Your task to perform on an android device: uninstall "Adobe Acrobat Reader" Image 0: 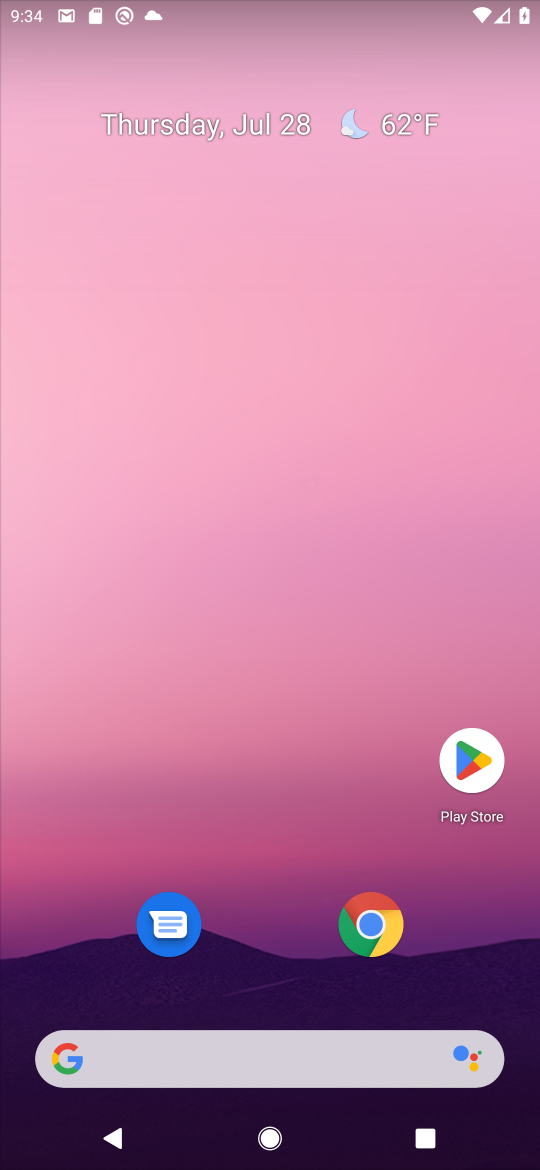
Step 0: press home button
Your task to perform on an android device: uninstall "Adobe Acrobat Reader" Image 1: 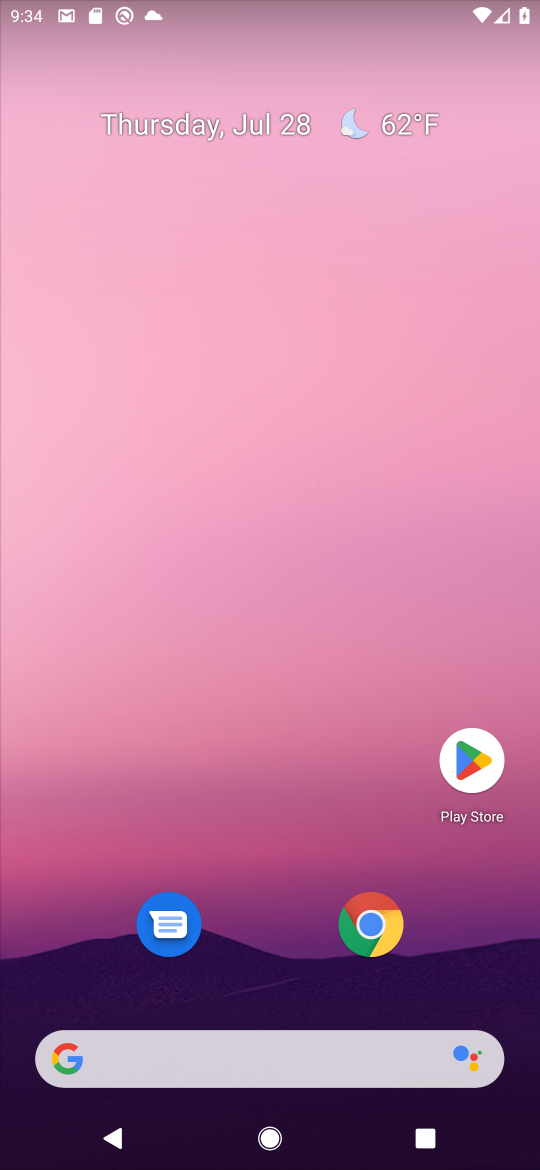
Step 1: click (475, 756)
Your task to perform on an android device: uninstall "Adobe Acrobat Reader" Image 2: 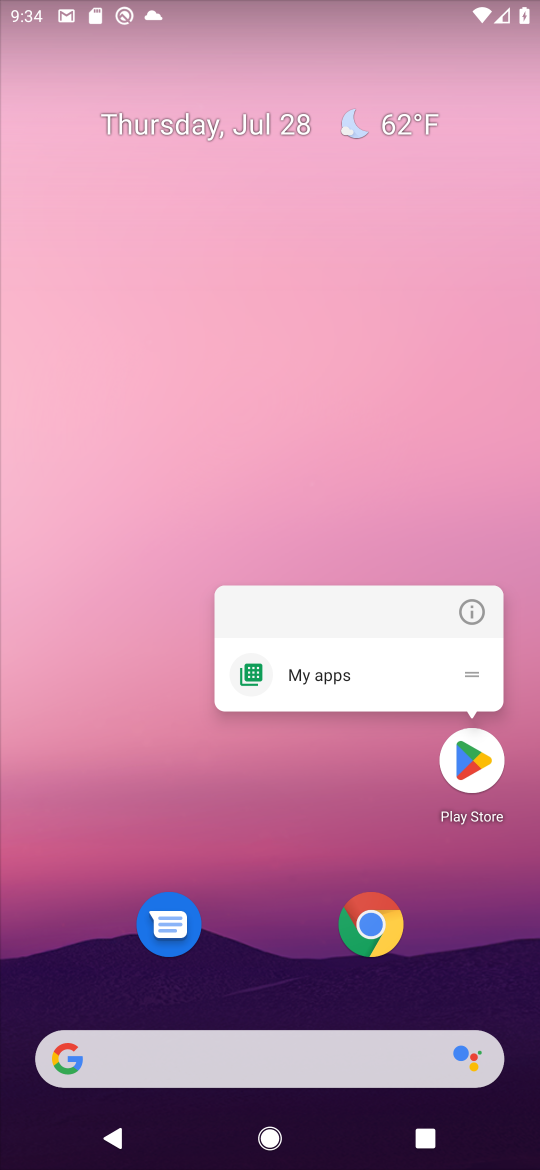
Step 2: click (475, 768)
Your task to perform on an android device: uninstall "Adobe Acrobat Reader" Image 3: 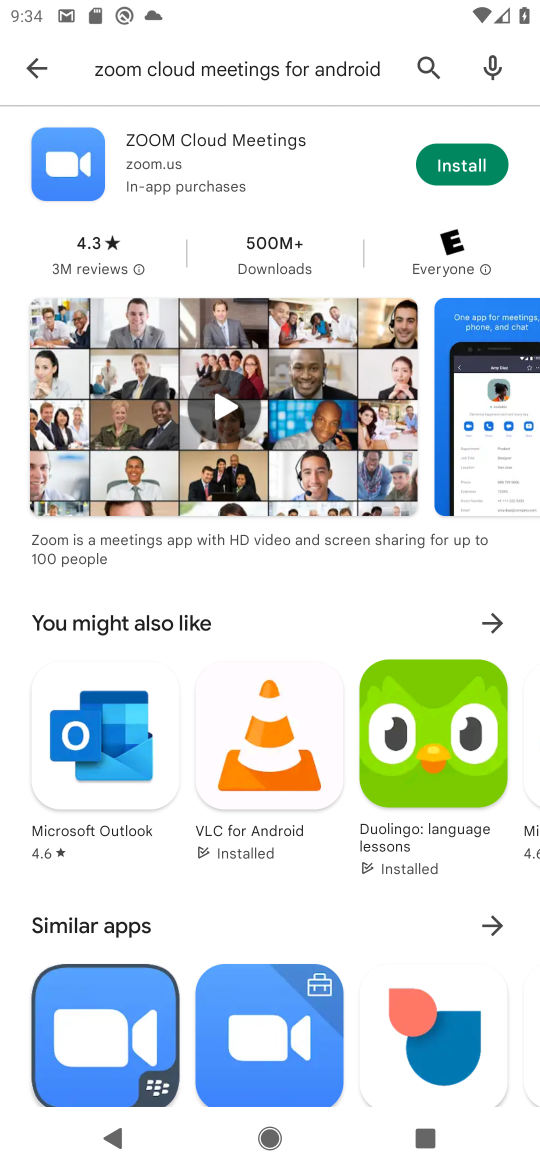
Step 3: click (425, 63)
Your task to perform on an android device: uninstall "Adobe Acrobat Reader" Image 4: 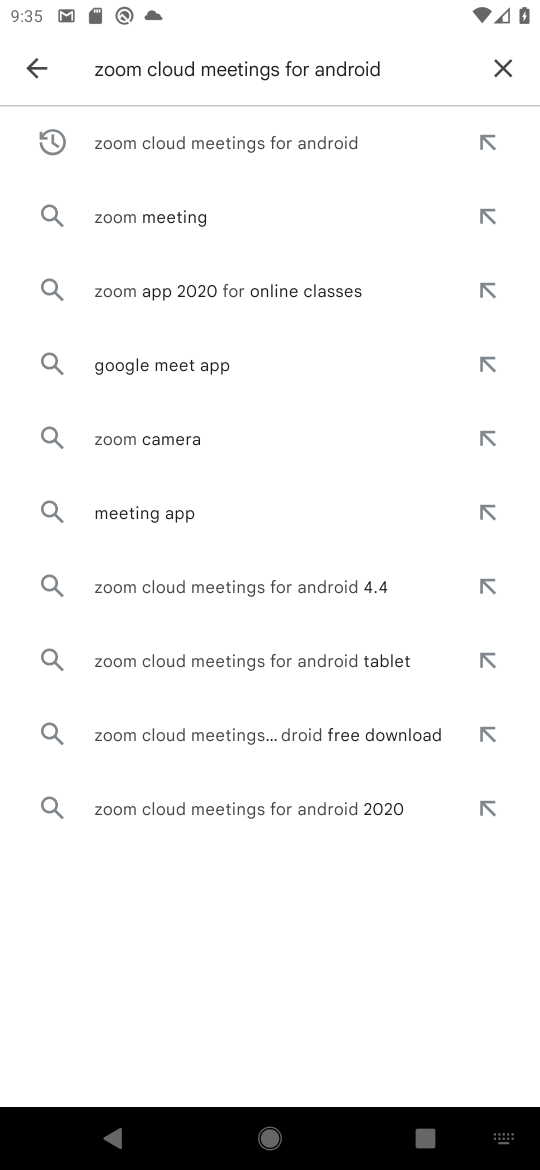
Step 4: click (492, 60)
Your task to perform on an android device: uninstall "Adobe Acrobat Reader" Image 5: 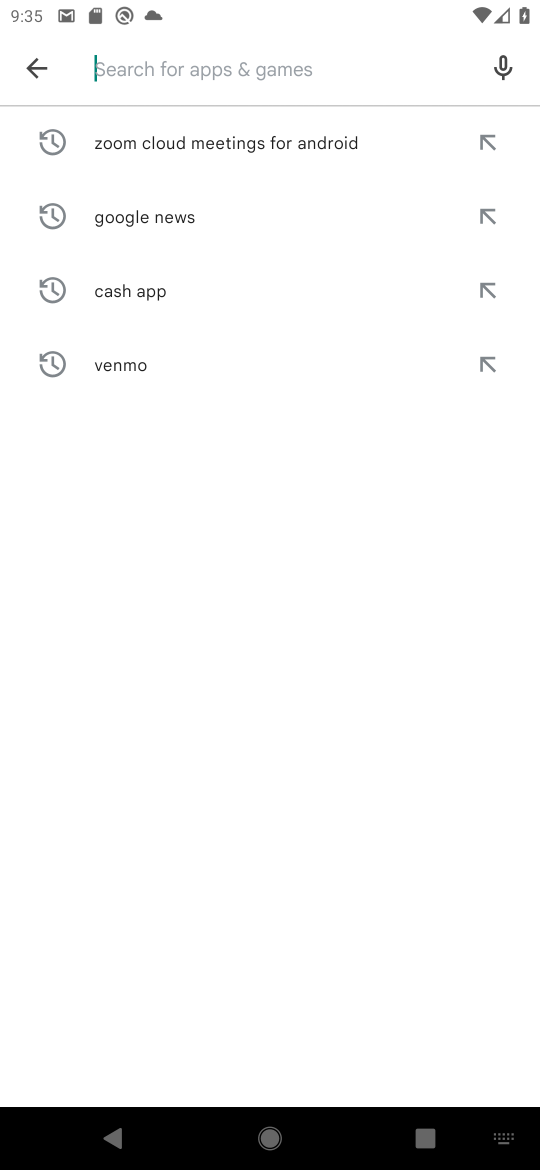
Step 5: type "Adobe Acrobat Reader"
Your task to perform on an android device: uninstall "Adobe Acrobat Reader" Image 6: 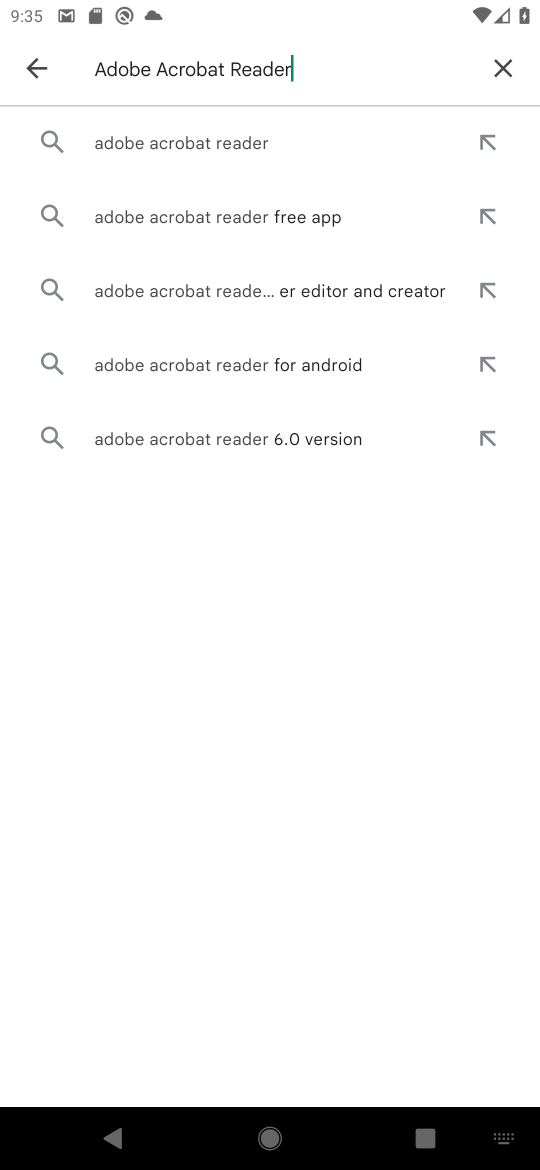
Step 6: click (158, 145)
Your task to perform on an android device: uninstall "Adobe Acrobat Reader" Image 7: 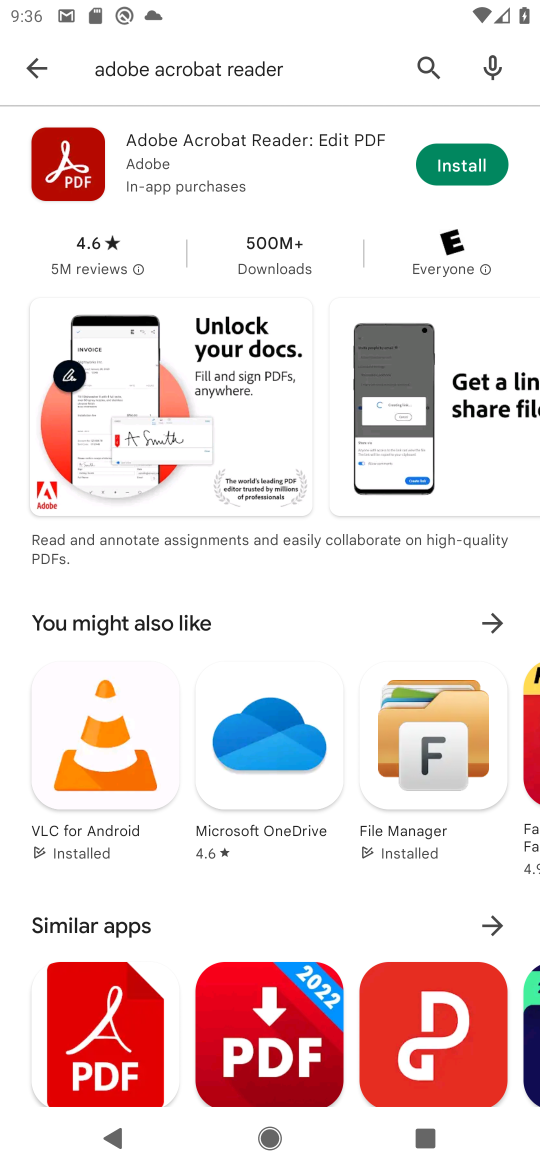
Step 7: task complete